Your task to perform on an android device: toggle airplane mode Image 0: 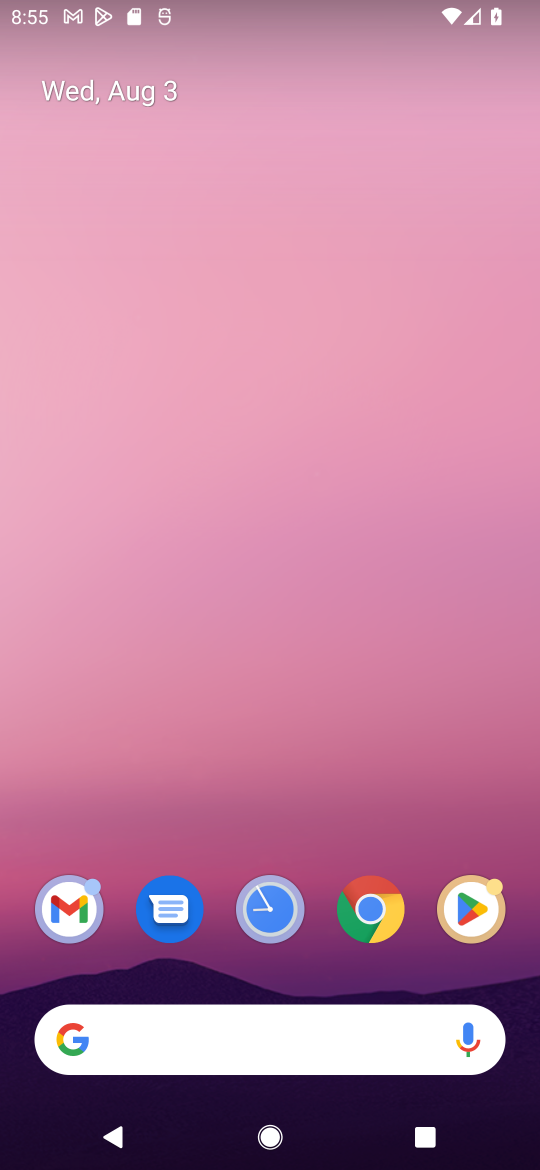
Step 0: drag from (404, 822) to (447, 284)
Your task to perform on an android device: toggle airplane mode Image 1: 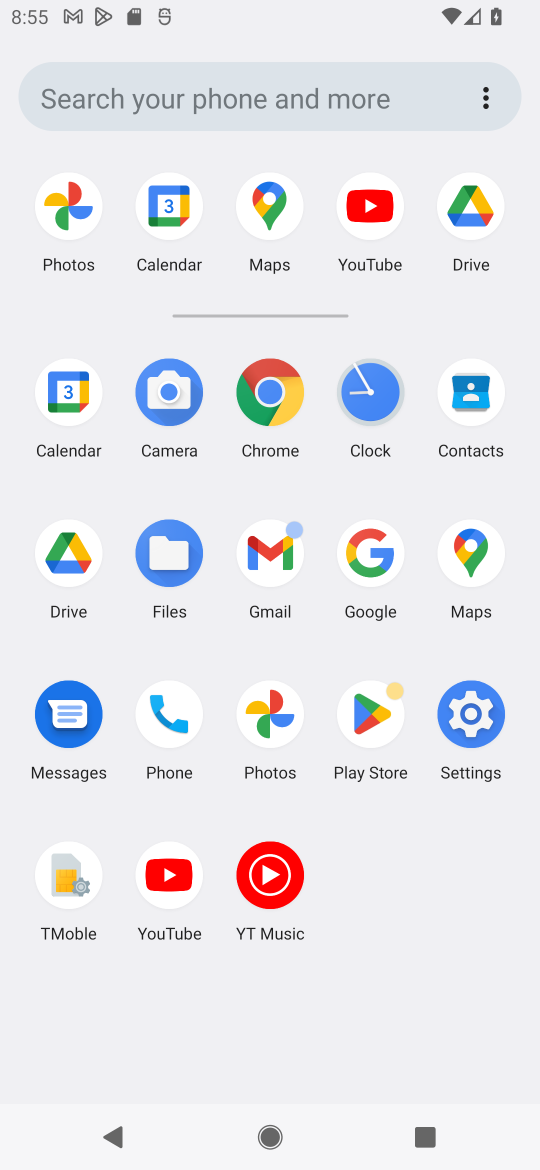
Step 1: click (474, 709)
Your task to perform on an android device: toggle airplane mode Image 2: 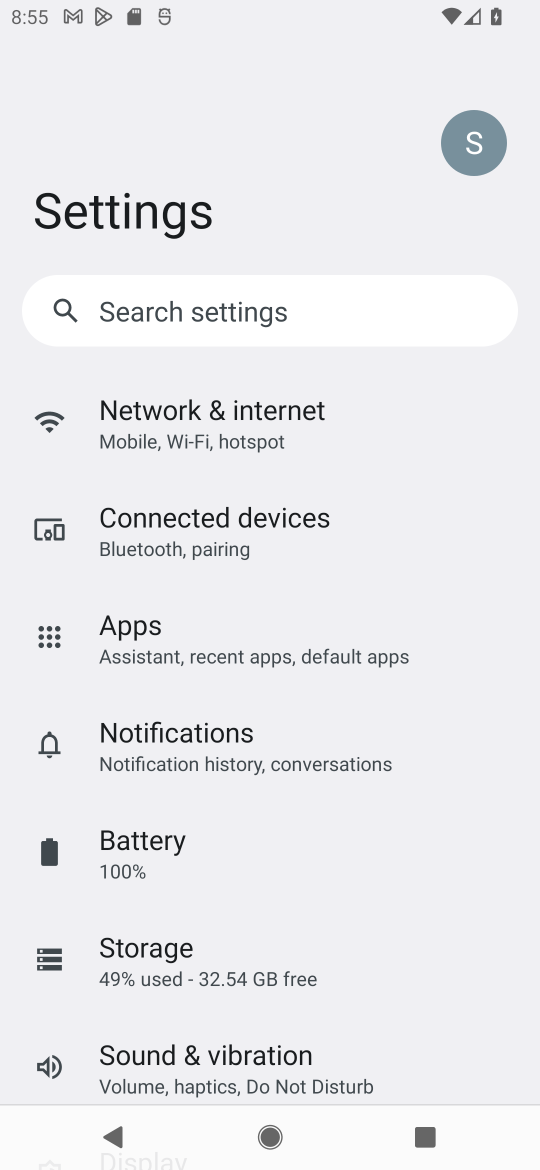
Step 2: drag from (399, 970) to (413, 821)
Your task to perform on an android device: toggle airplane mode Image 3: 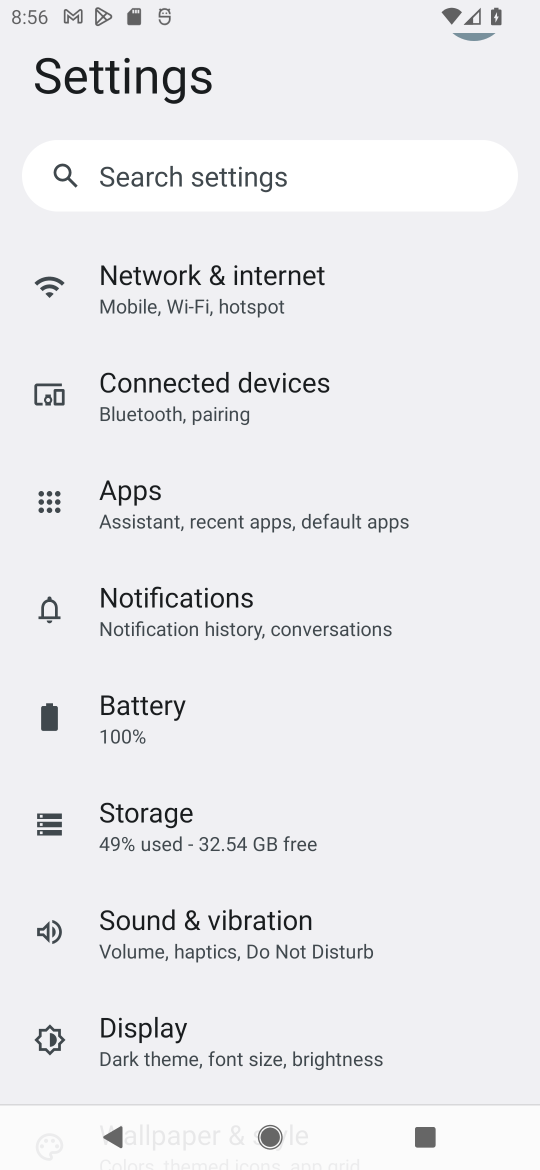
Step 3: drag from (432, 994) to (465, 790)
Your task to perform on an android device: toggle airplane mode Image 4: 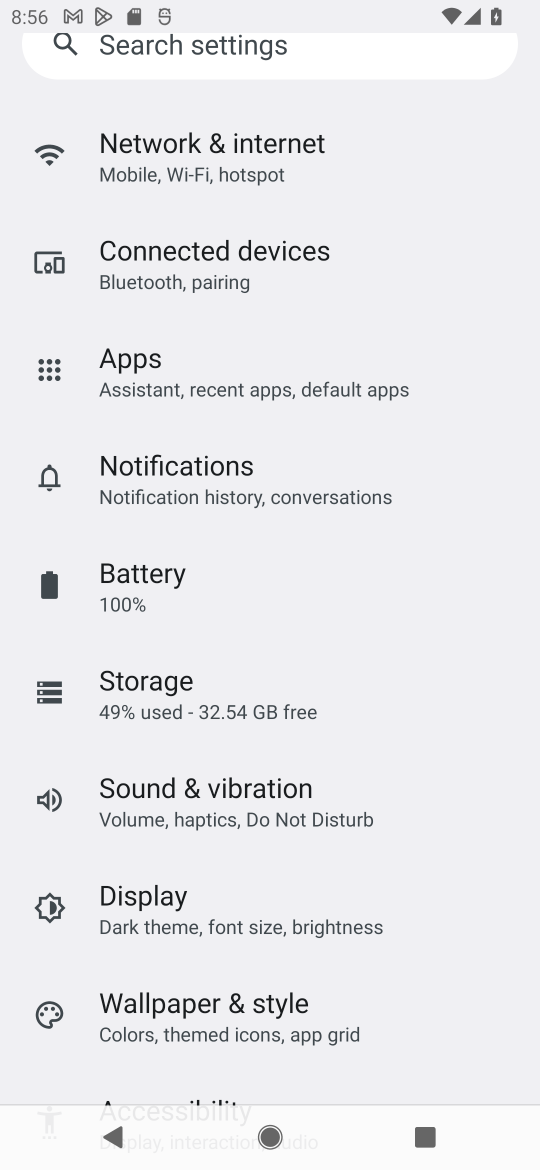
Step 4: drag from (451, 921) to (461, 762)
Your task to perform on an android device: toggle airplane mode Image 5: 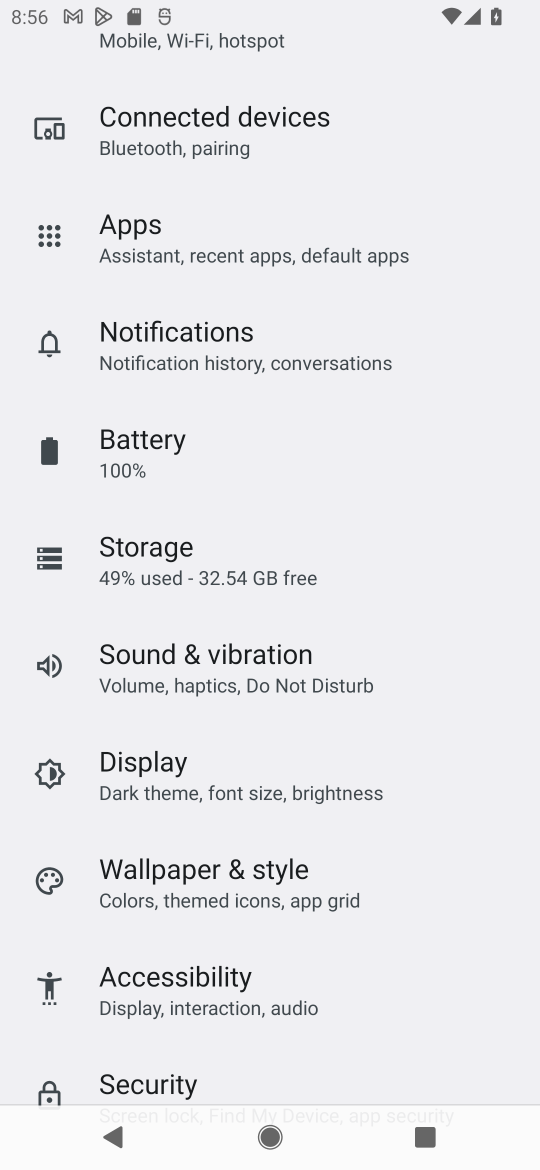
Step 5: drag from (430, 994) to (439, 784)
Your task to perform on an android device: toggle airplane mode Image 6: 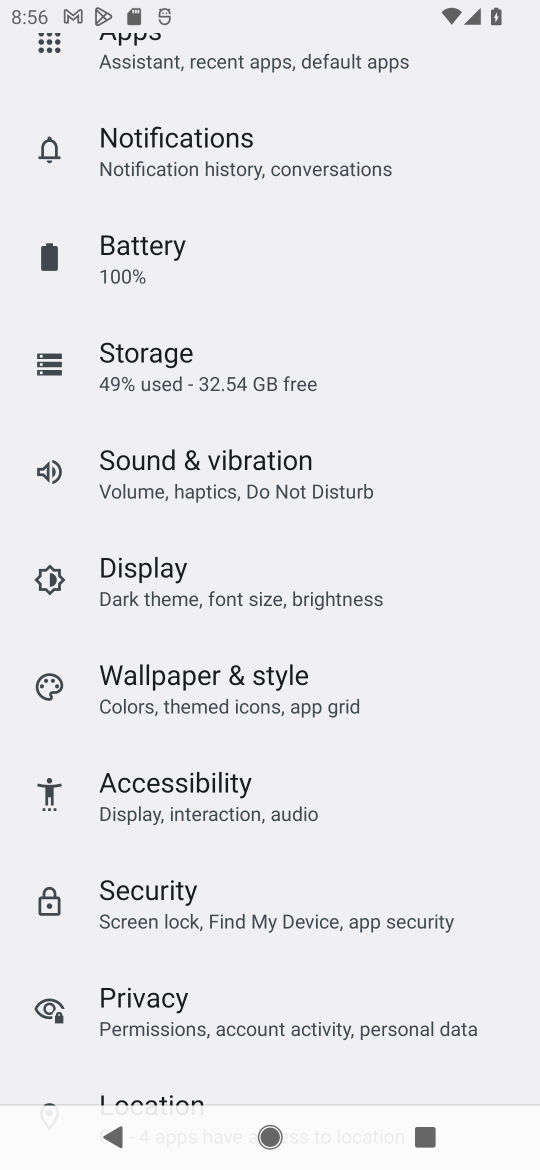
Step 6: drag from (467, 973) to (484, 782)
Your task to perform on an android device: toggle airplane mode Image 7: 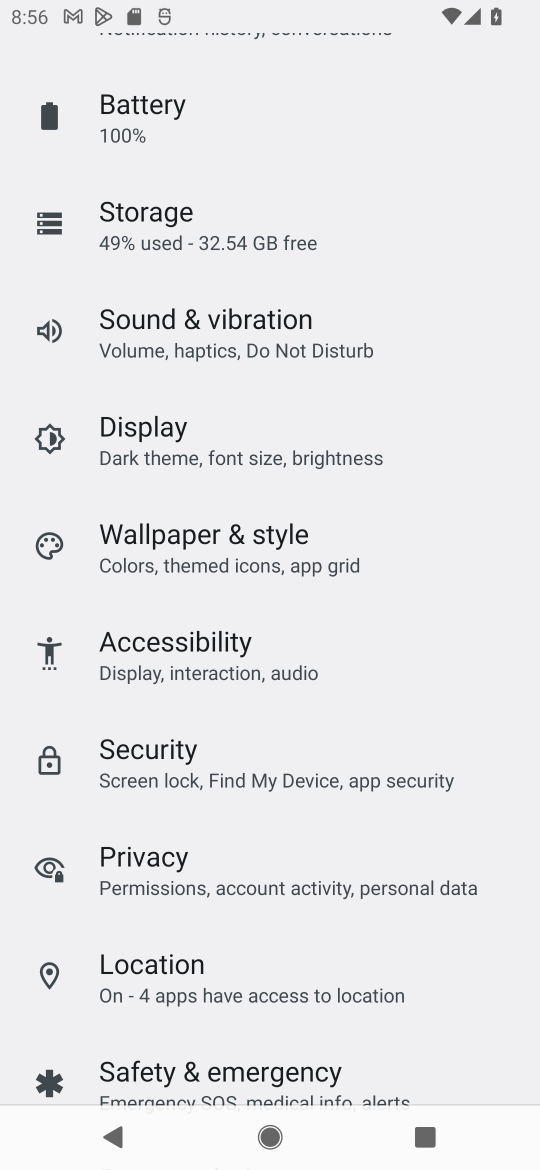
Step 7: drag from (446, 483) to (453, 604)
Your task to perform on an android device: toggle airplane mode Image 8: 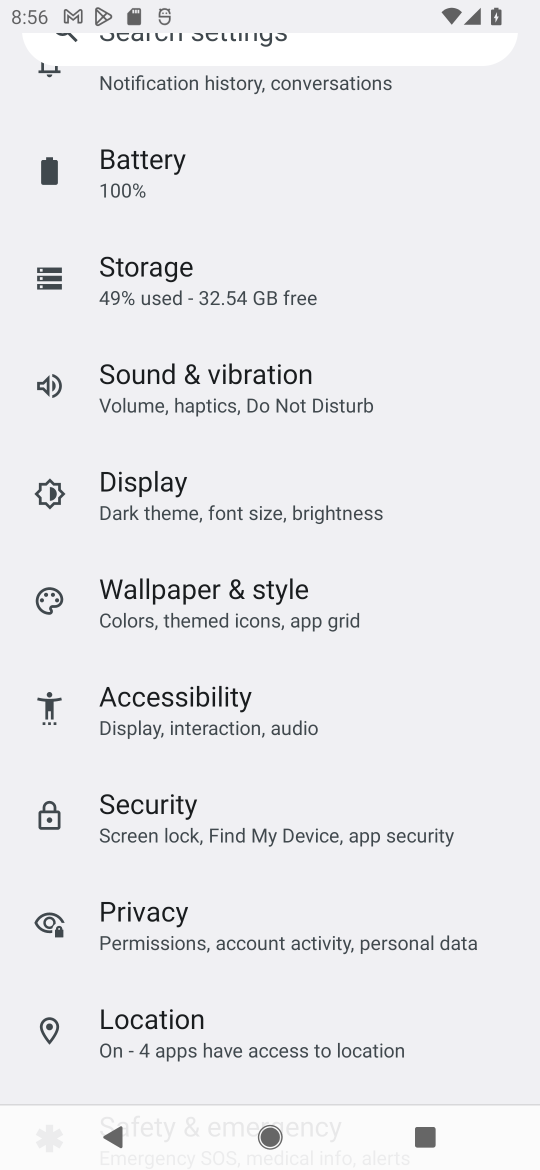
Step 8: drag from (453, 507) to (460, 677)
Your task to perform on an android device: toggle airplane mode Image 9: 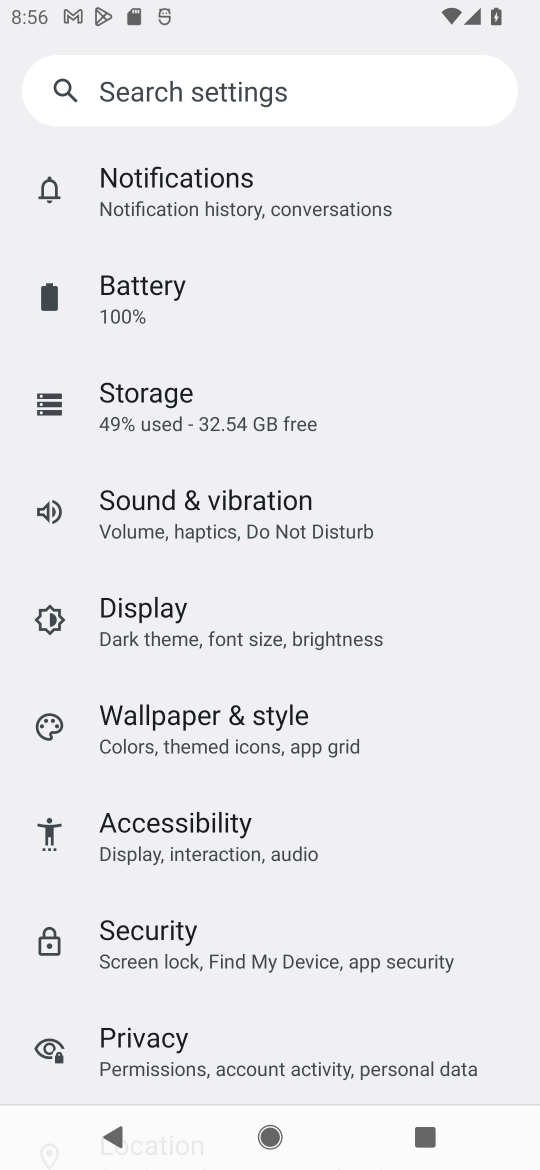
Step 9: drag from (457, 459) to (460, 608)
Your task to perform on an android device: toggle airplane mode Image 10: 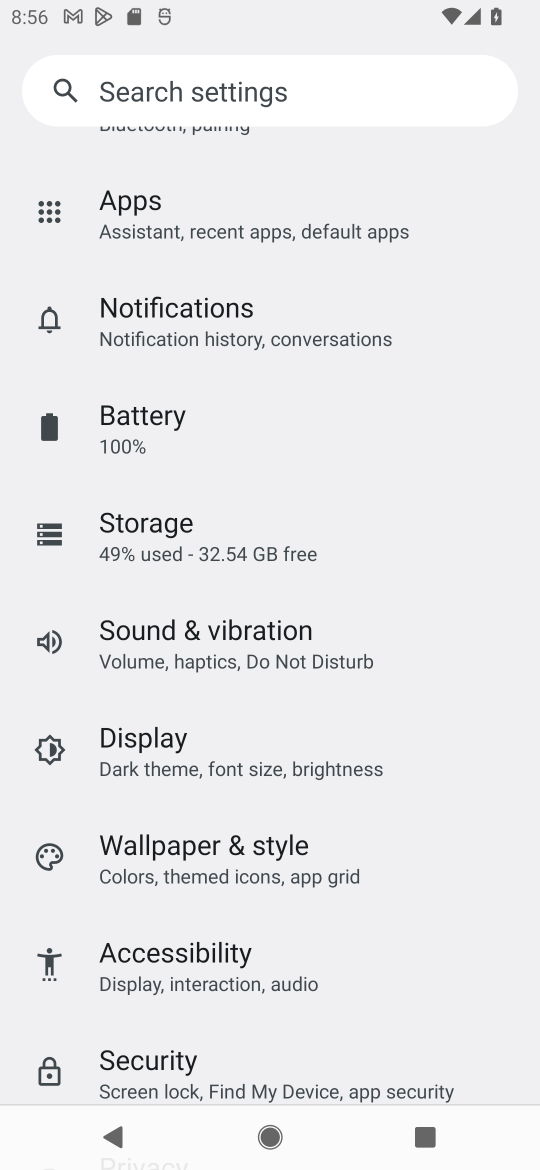
Step 10: drag from (460, 432) to (457, 597)
Your task to perform on an android device: toggle airplane mode Image 11: 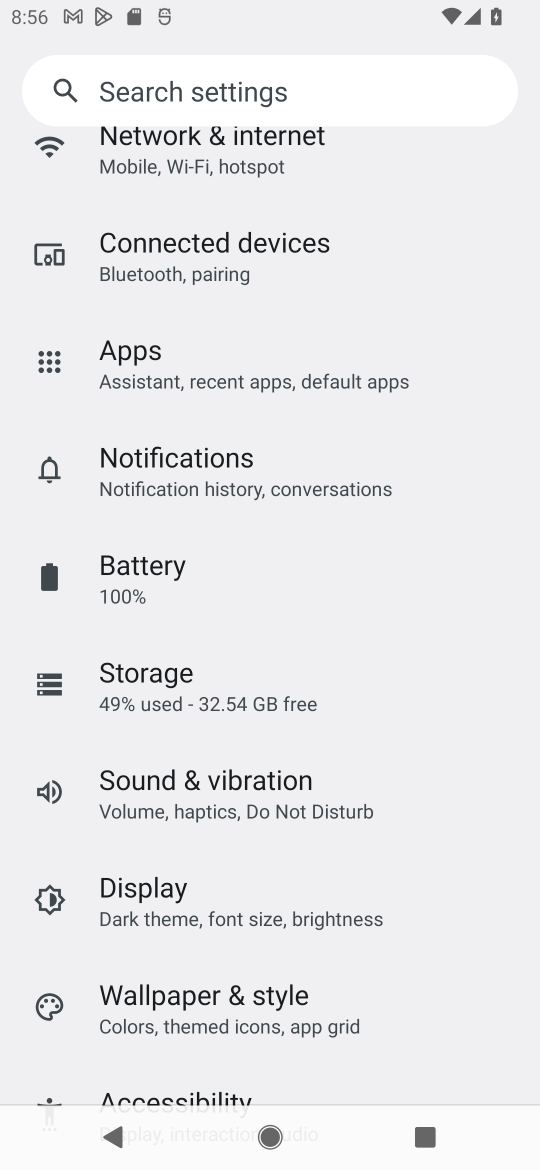
Step 11: drag from (465, 444) to (466, 614)
Your task to perform on an android device: toggle airplane mode Image 12: 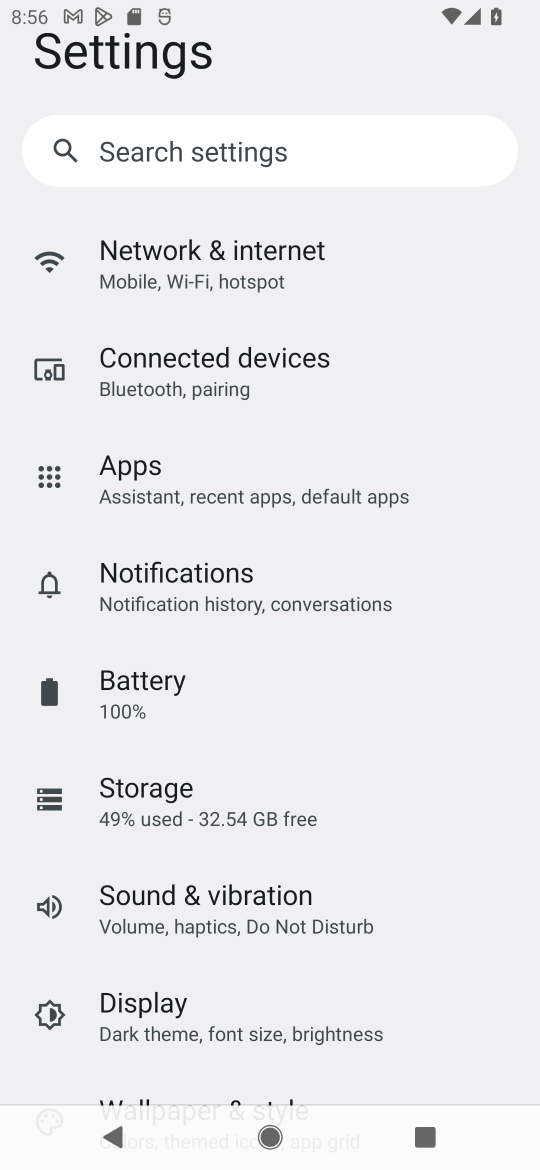
Step 12: drag from (466, 418) to (463, 713)
Your task to perform on an android device: toggle airplane mode Image 13: 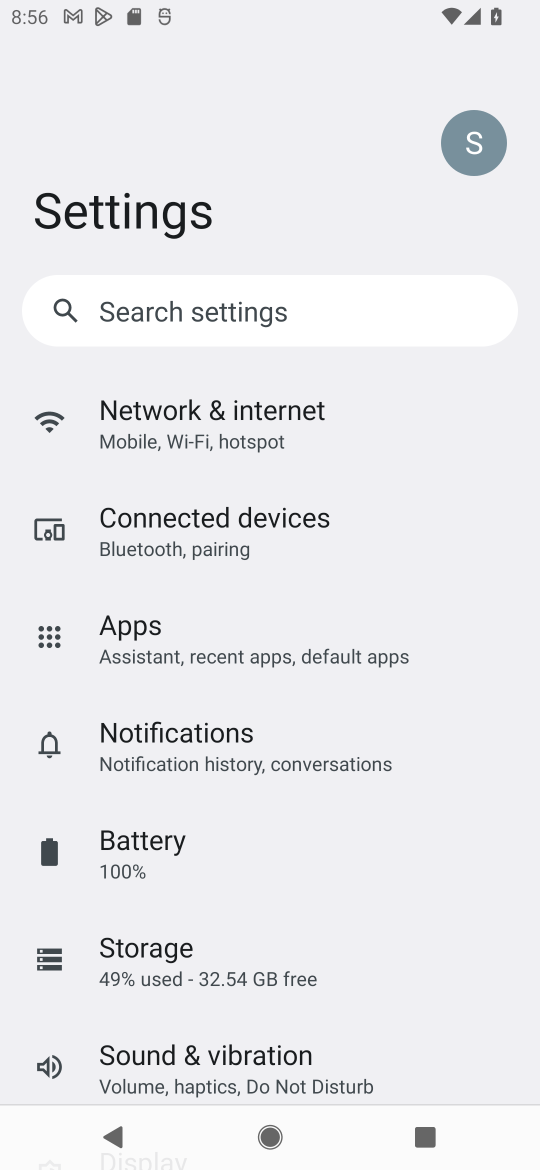
Step 13: click (371, 421)
Your task to perform on an android device: toggle airplane mode Image 14: 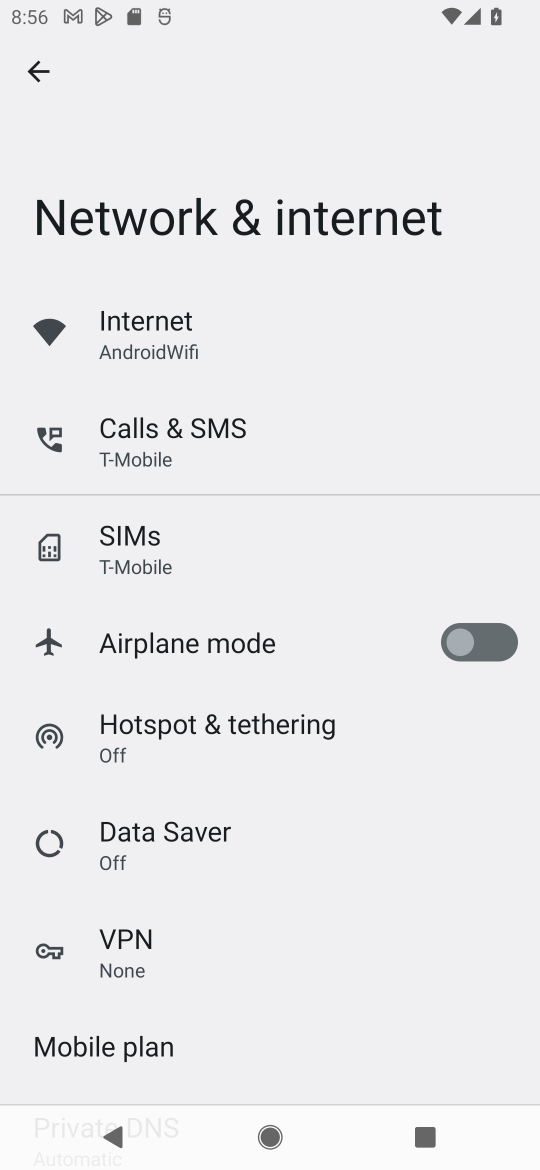
Step 14: click (460, 658)
Your task to perform on an android device: toggle airplane mode Image 15: 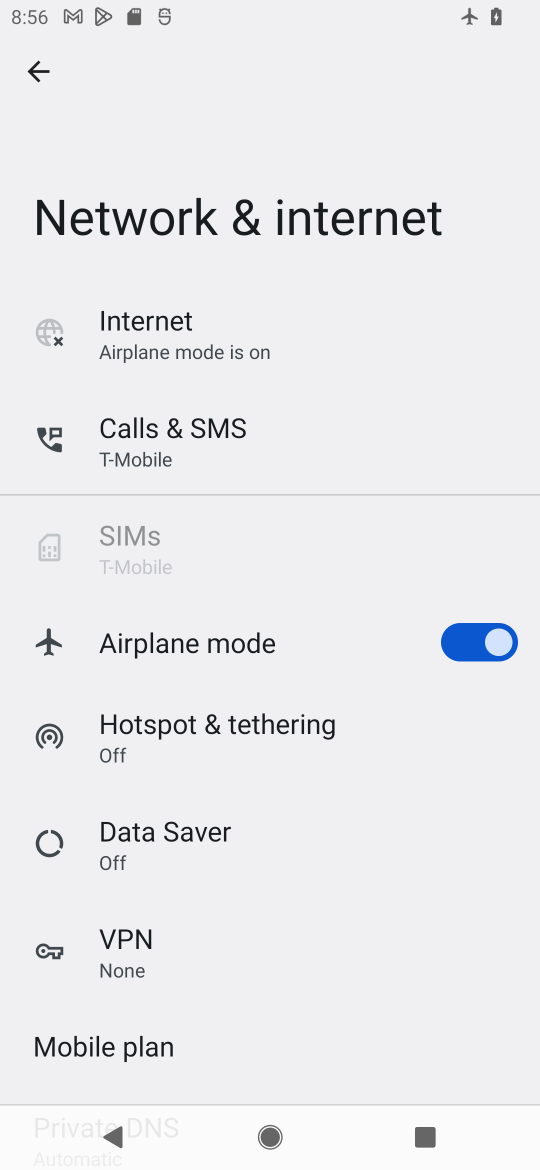
Step 15: task complete